Your task to perform on an android device: open chrome privacy settings Image 0: 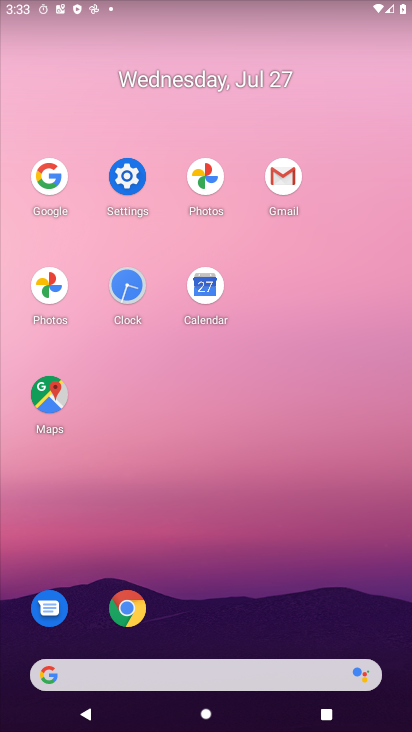
Step 0: click (143, 610)
Your task to perform on an android device: open chrome privacy settings Image 1: 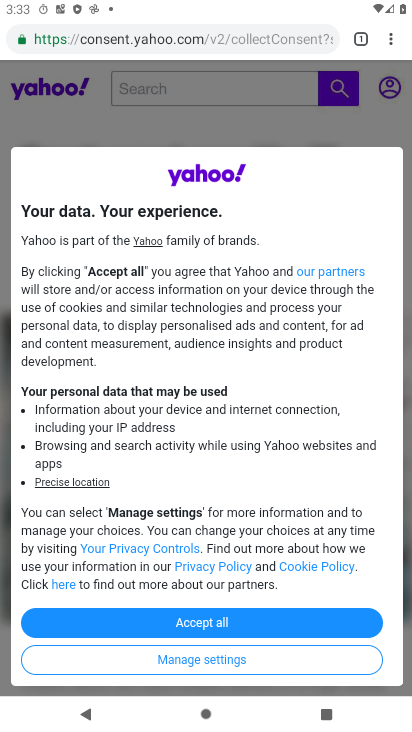
Step 1: click (392, 35)
Your task to perform on an android device: open chrome privacy settings Image 2: 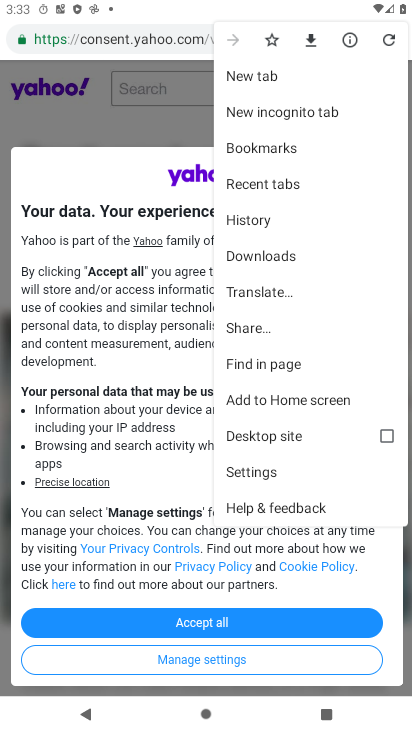
Step 2: click (258, 475)
Your task to perform on an android device: open chrome privacy settings Image 3: 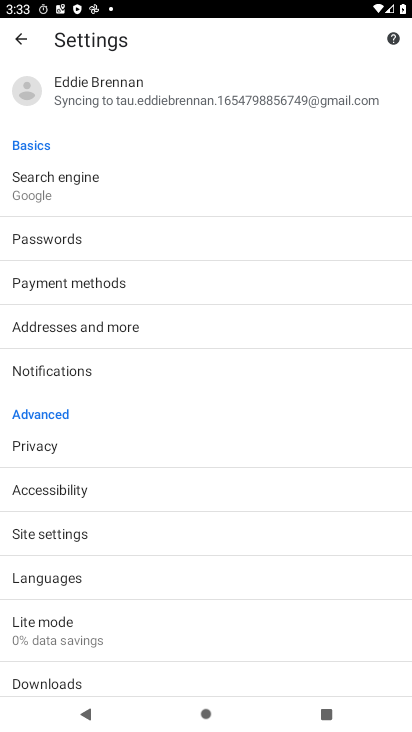
Step 3: click (43, 443)
Your task to perform on an android device: open chrome privacy settings Image 4: 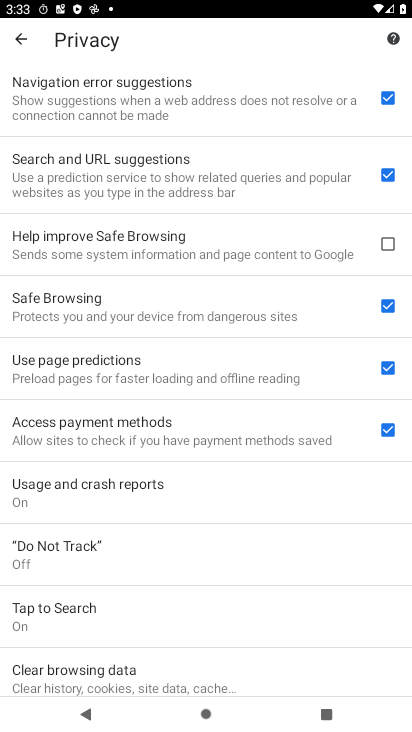
Step 4: task complete